Your task to perform on an android device: Go to battery settings Image 0: 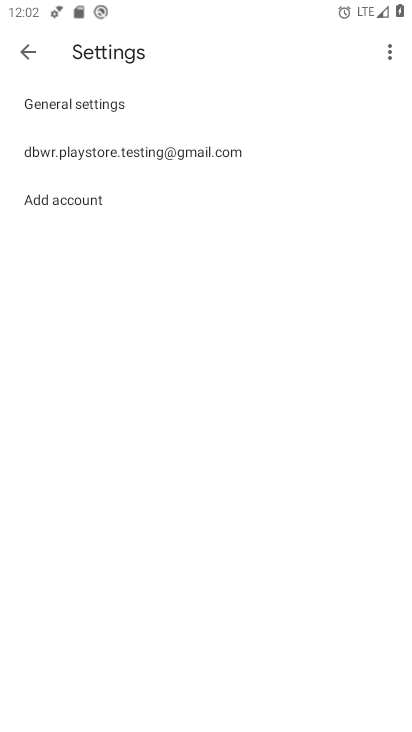
Step 0: press home button
Your task to perform on an android device: Go to battery settings Image 1: 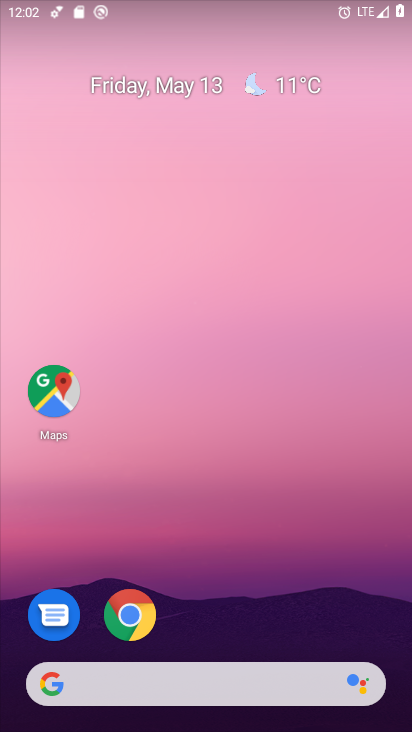
Step 1: drag from (267, 569) to (273, 72)
Your task to perform on an android device: Go to battery settings Image 2: 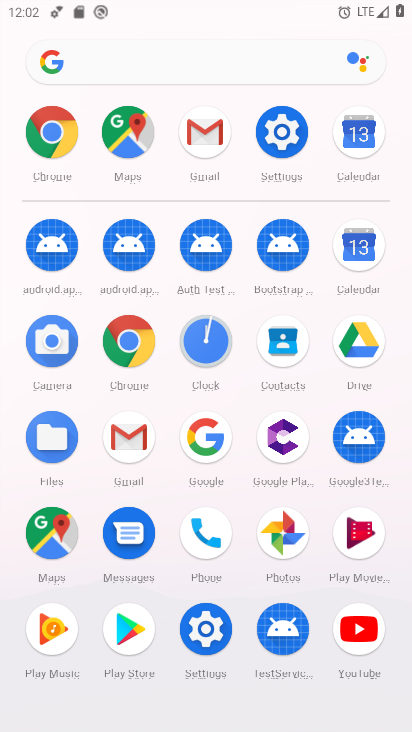
Step 2: click (280, 129)
Your task to perform on an android device: Go to battery settings Image 3: 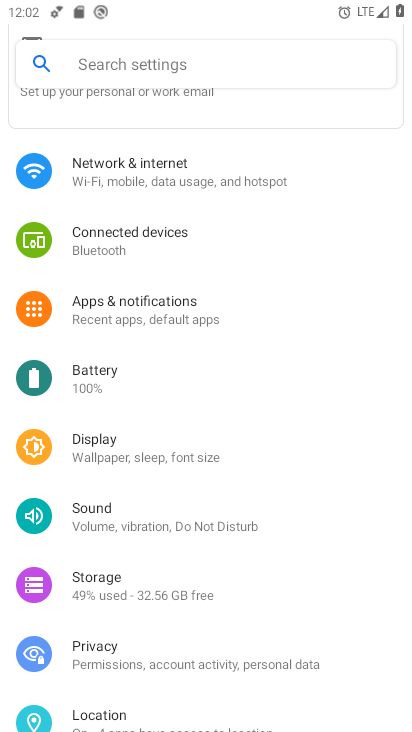
Step 3: click (128, 375)
Your task to perform on an android device: Go to battery settings Image 4: 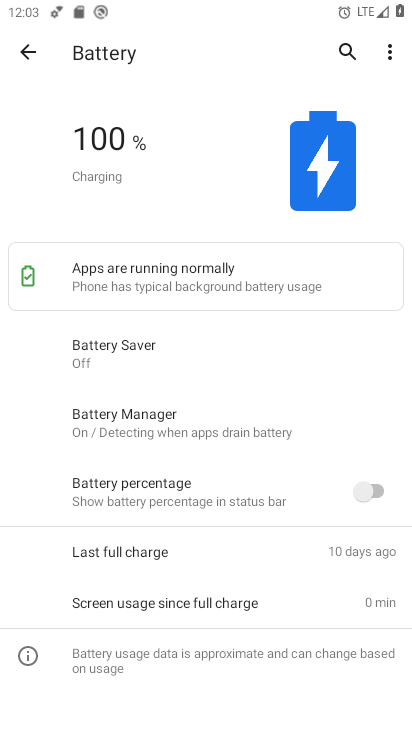
Step 4: task complete